Your task to perform on an android device: toggle priority inbox in the gmail app Image 0: 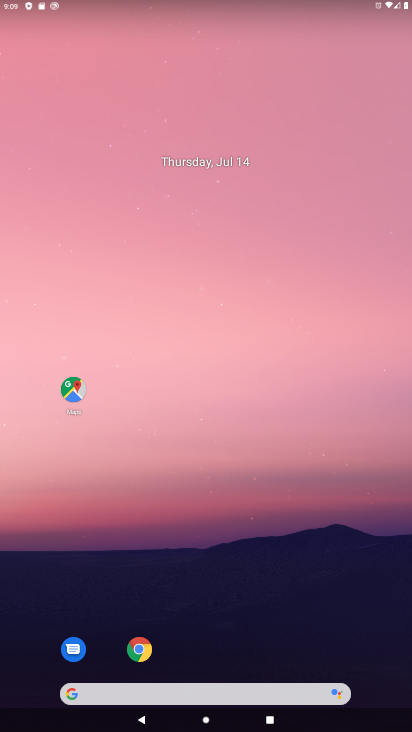
Step 0: drag from (173, 715) to (408, 679)
Your task to perform on an android device: toggle priority inbox in the gmail app Image 1: 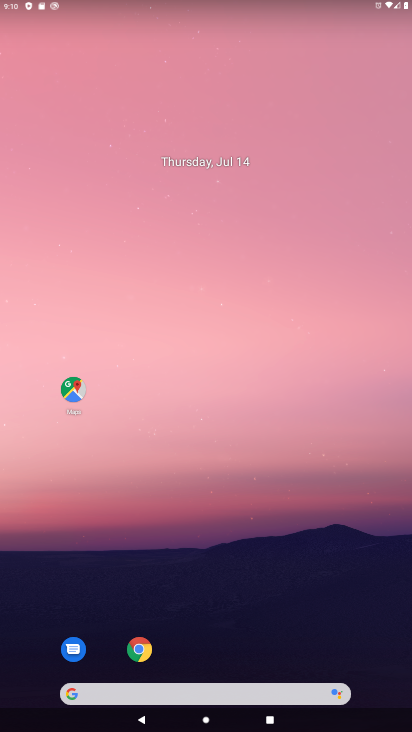
Step 1: drag from (170, 648) to (368, 148)
Your task to perform on an android device: toggle priority inbox in the gmail app Image 2: 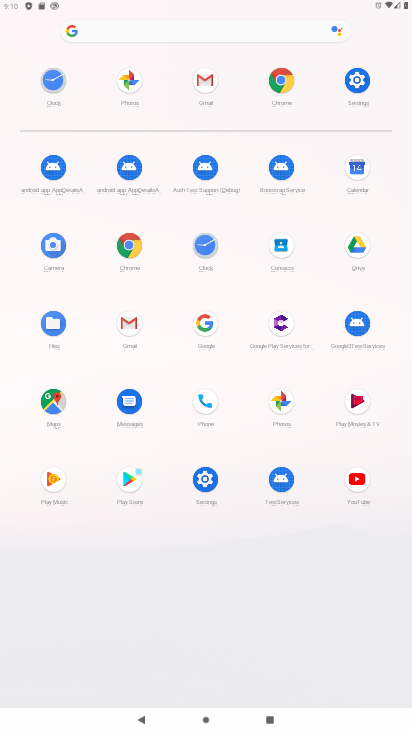
Step 2: click (198, 86)
Your task to perform on an android device: toggle priority inbox in the gmail app Image 3: 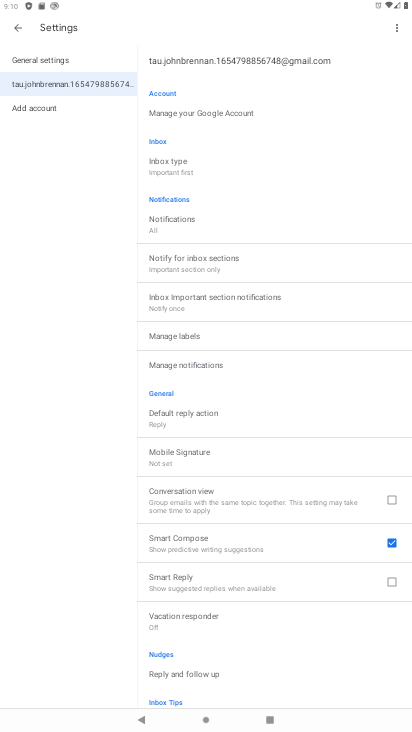
Step 3: click (178, 161)
Your task to perform on an android device: toggle priority inbox in the gmail app Image 4: 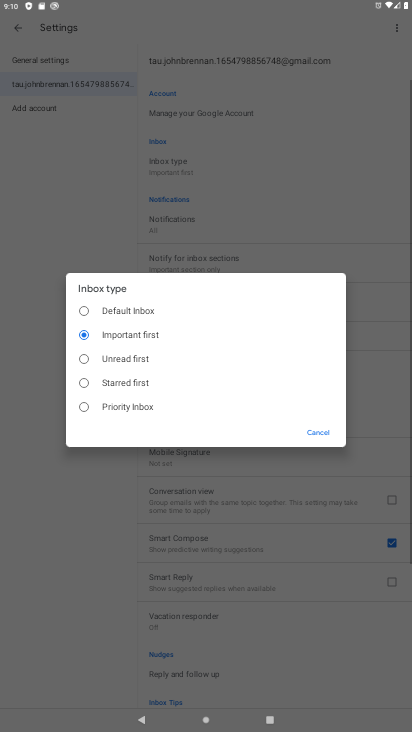
Step 4: click (125, 405)
Your task to perform on an android device: toggle priority inbox in the gmail app Image 5: 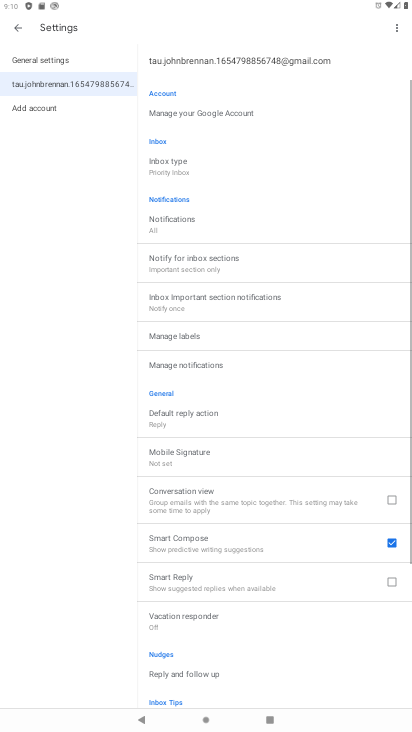
Step 5: task complete